Your task to perform on an android device: add a contact in the contacts app Image 0: 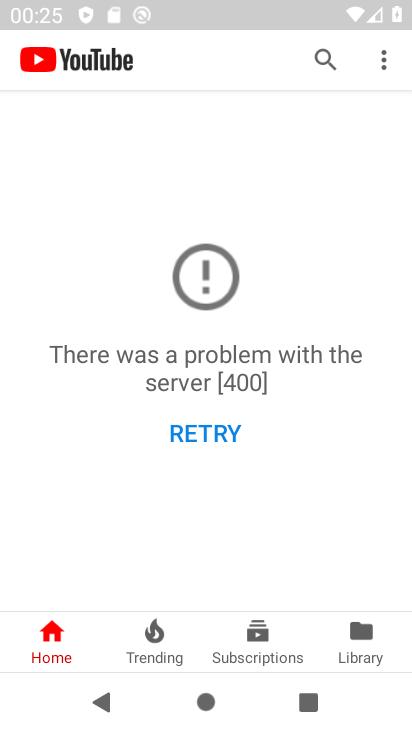
Step 0: press home button
Your task to perform on an android device: add a contact in the contacts app Image 1: 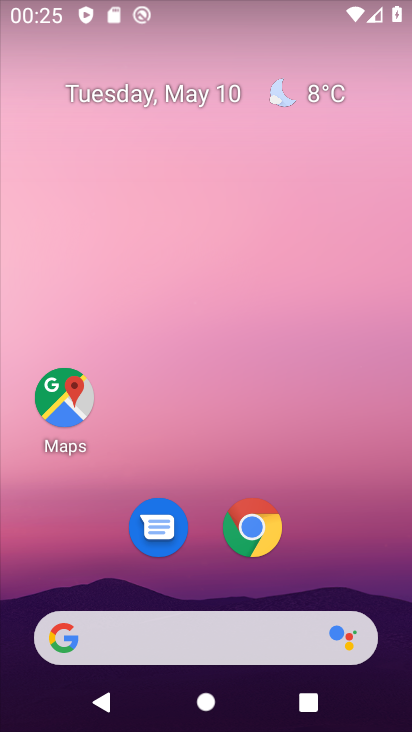
Step 1: drag from (319, 584) to (111, 93)
Your task to perform on an android device: add a contact in the contacts app Image 2: 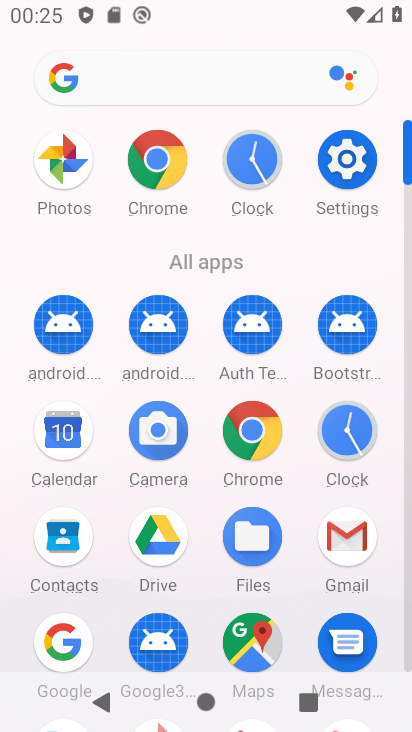
Step 2: click (58, 553)
Your task to perform on an android device: add a contact in the contacts app Image 3: 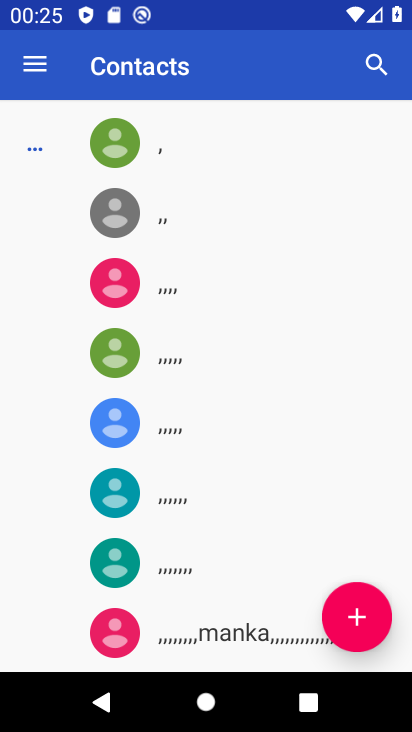
Step 3: drag from (242, 630) to (228, 284)
Your task to perform on an android device: add a contact in the contacts app Image 4: 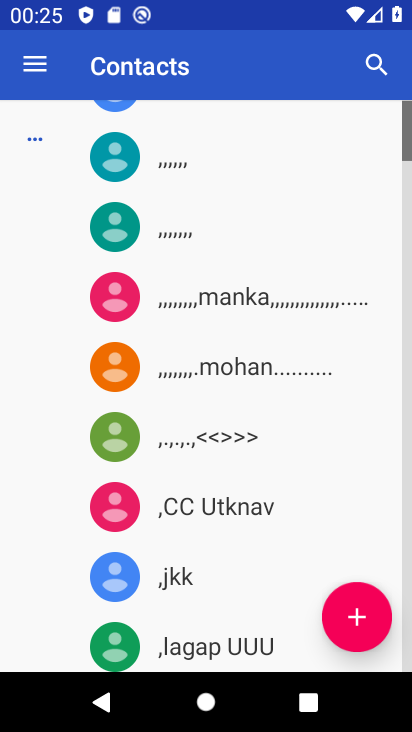
Step 4: click (359, 619)
Your task to perform on an android device: add a contact in the contacts app Image 5: 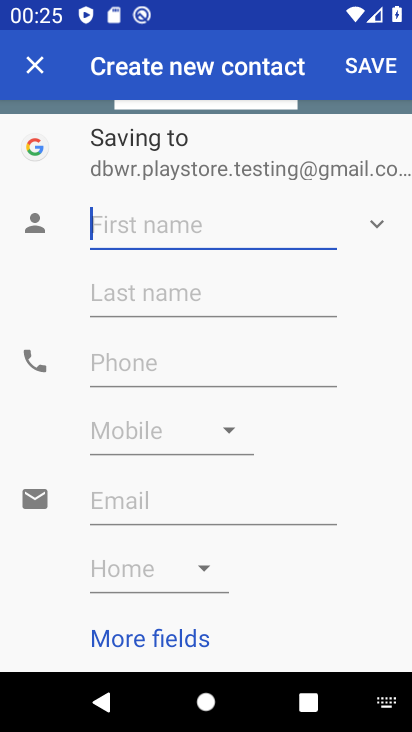
Step 5: click (201, 233)
Your task to perform on an android device: add a contact in the contacts app Image 6: 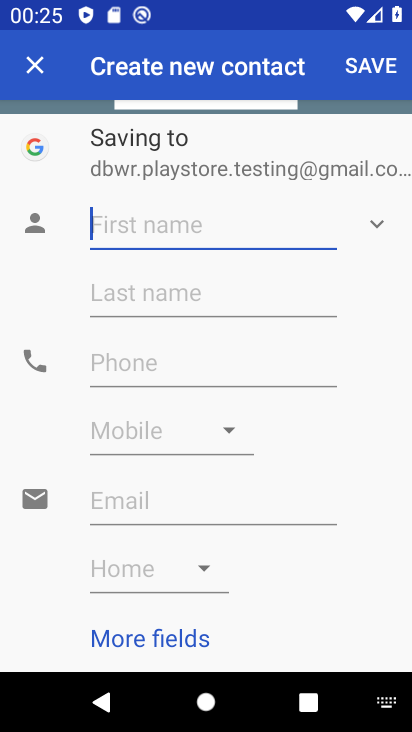
Step 6: type "back"
Your task to perform on an android device: add a contact in the contacts app Image 7: 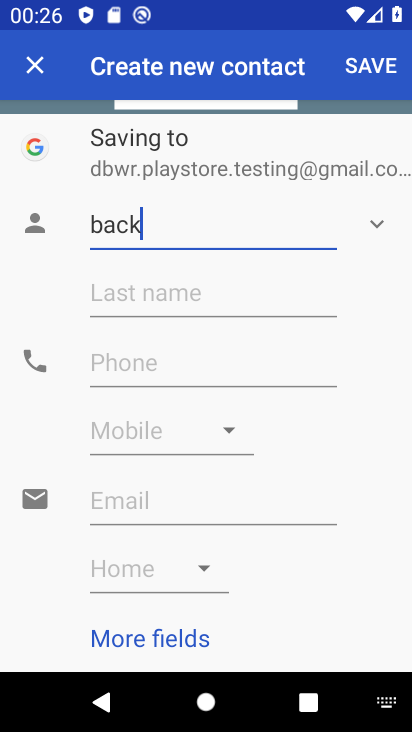
Step 7: click (221, 305)
Your task to perform on an android device: add a contact in the contacts app Image 8: 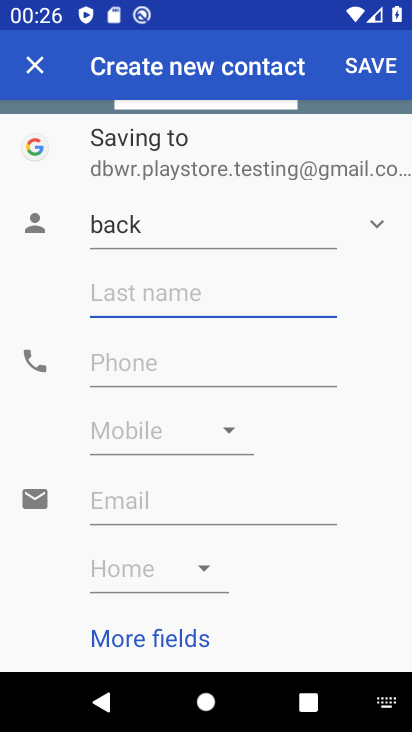
Step 8: type "press"
Your task to perform on an android device: add a contact in the contacts app Image 9: 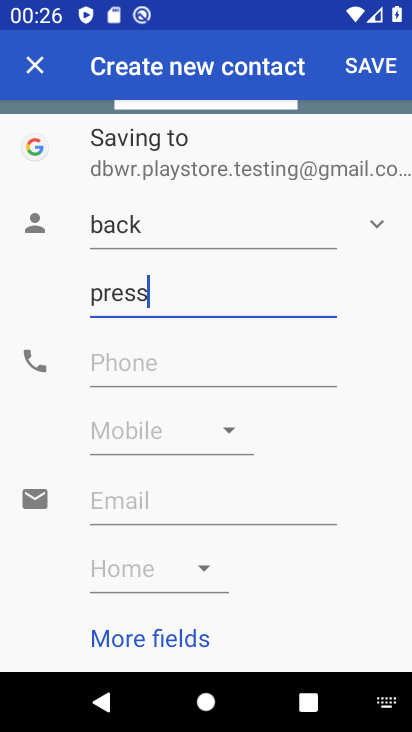
Step 9: click (136, 371)
Your task to perform on an android device: add a contact in the contacts app Image 10: 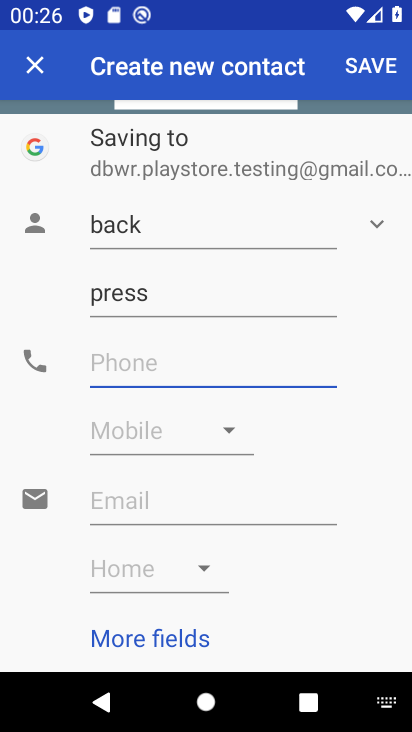
Step 10: type "task"
Your task to perform on an android device: add a contact in the contacts app Image 11: 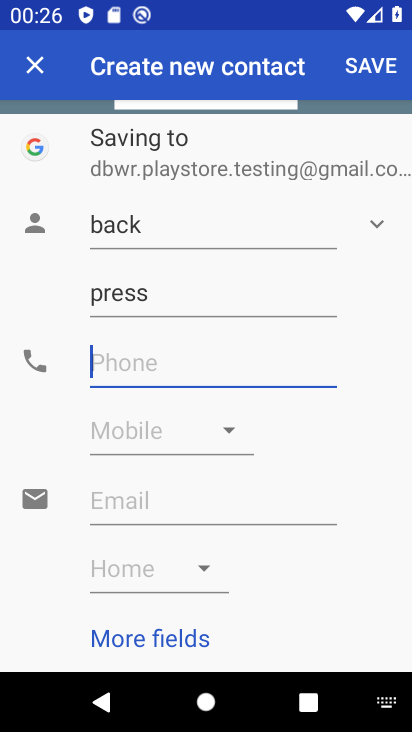
Step 11: type "27486428621"
Your task to perform on an android device: add a contact in the contacts app Image 12: 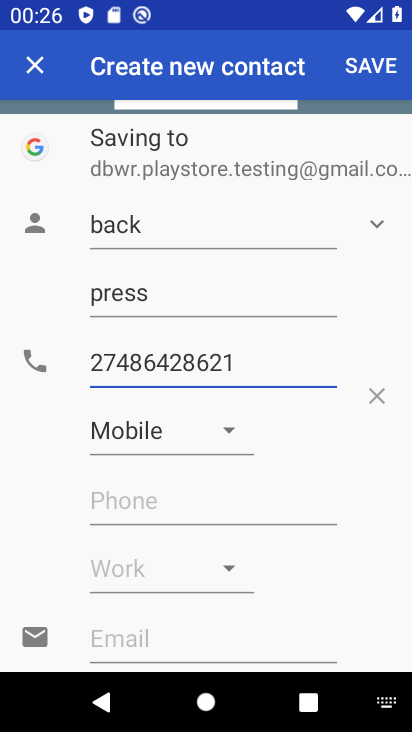
Step 12: click (379, 73)
Your task to perform on an android device: add a contact in the contacts app Image 13: 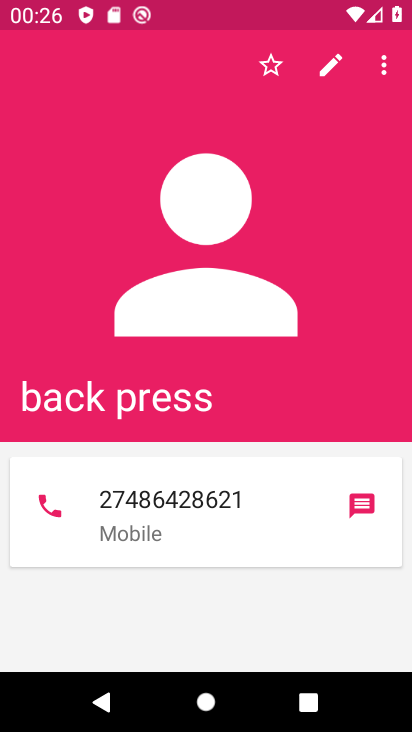
Step 13: task complete